Your task to perform on an android device: change timer sound Image 0: 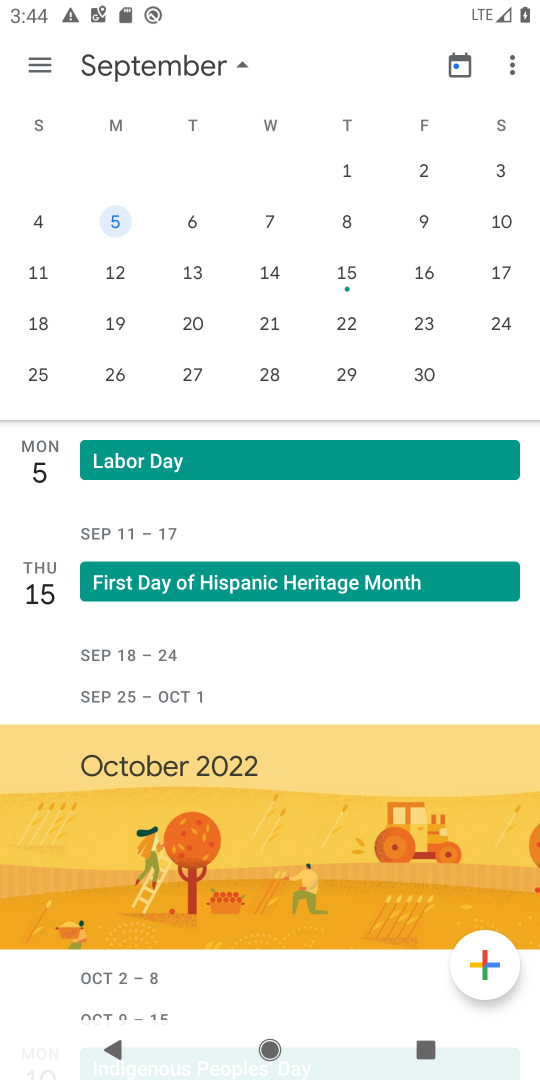
Step 0: press back button
Your task to perform on an android device: change timer sound Image 1: 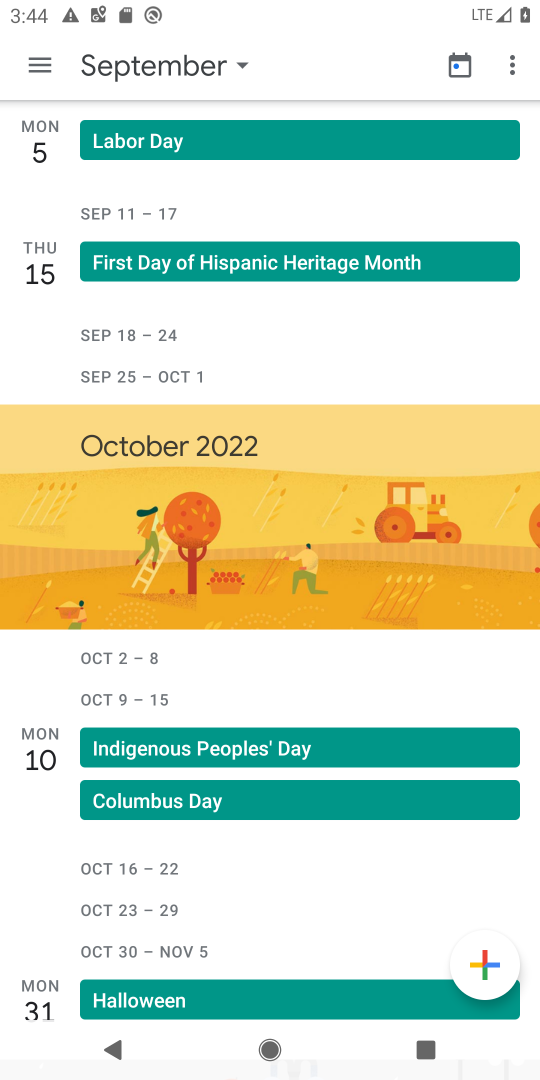
Step 1: press back button
Your task to perform on an android device: change timer sound Image 2: 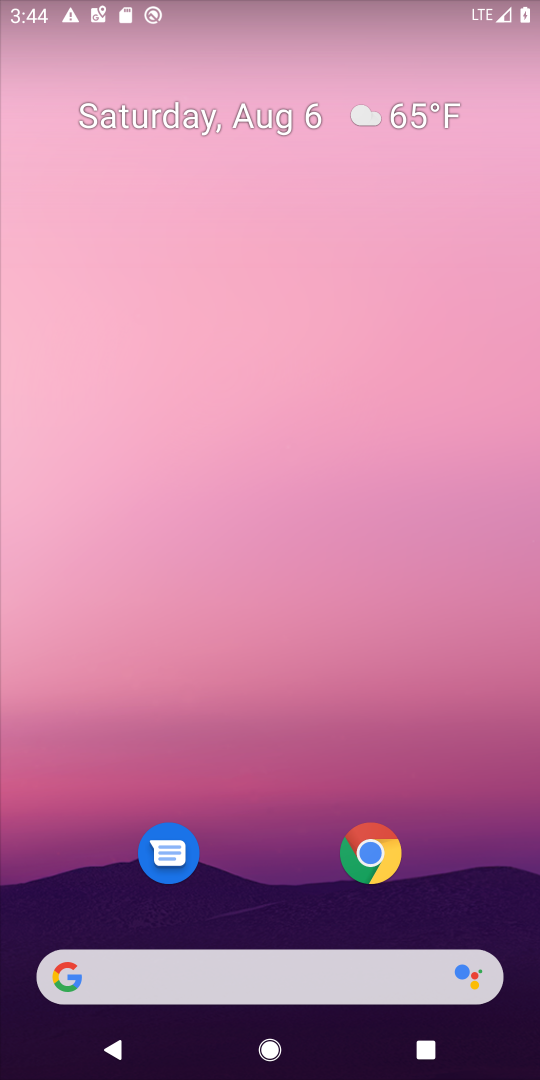
Step 2: drag from (287, 902) to (402, 90)
Your task to perform on an android device: change timer sound Image 3: 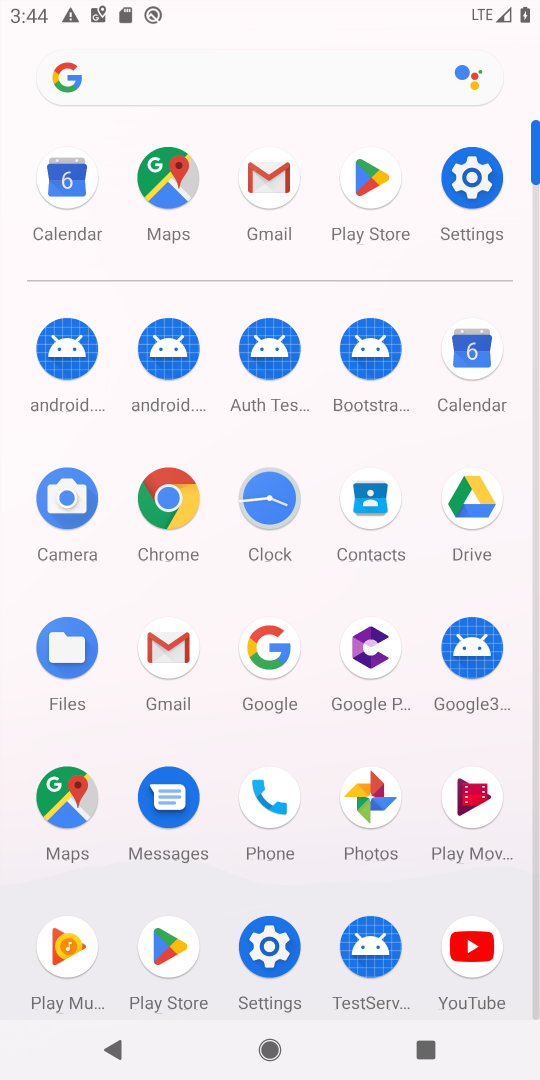
Step 3: click (269, 494)
Your task to perform on an android device: change timer sound Image 4: 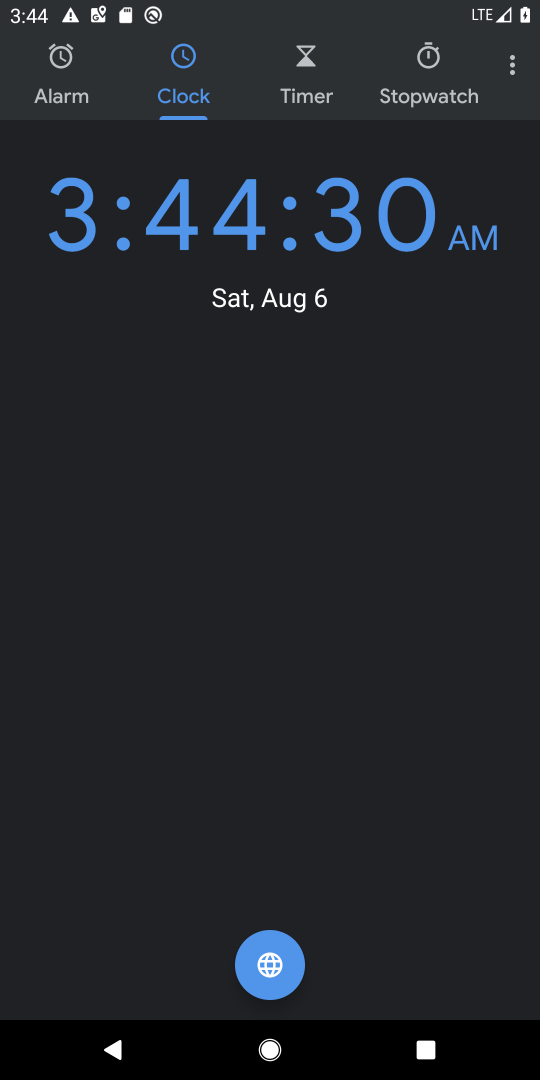
Step 4: click (514, 73)
Your task to perform on an android device: change timer sound Image 5: 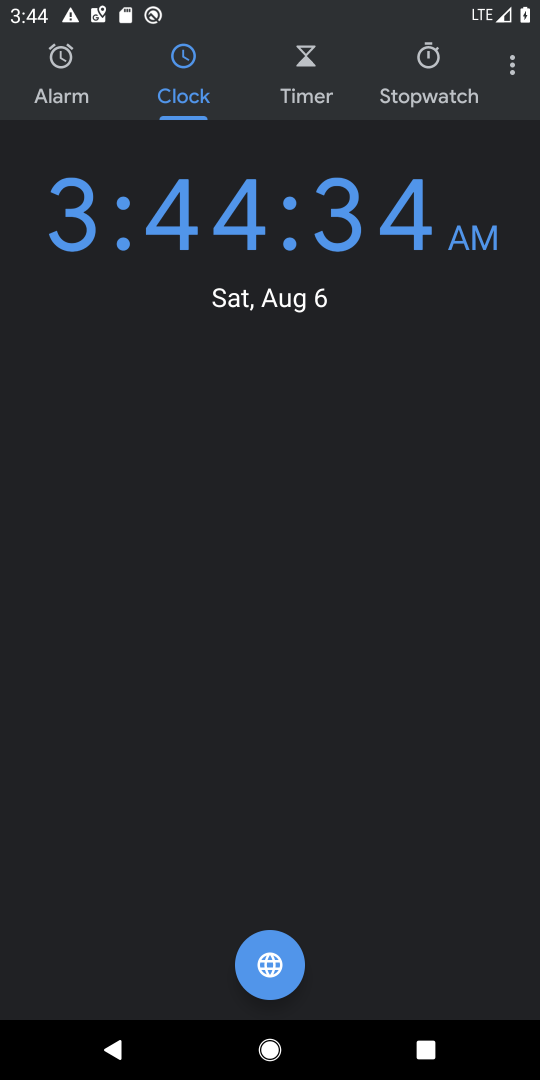
Step 5: click (514, 73)
Your task to perform on an android device: change timer sound Image 6: 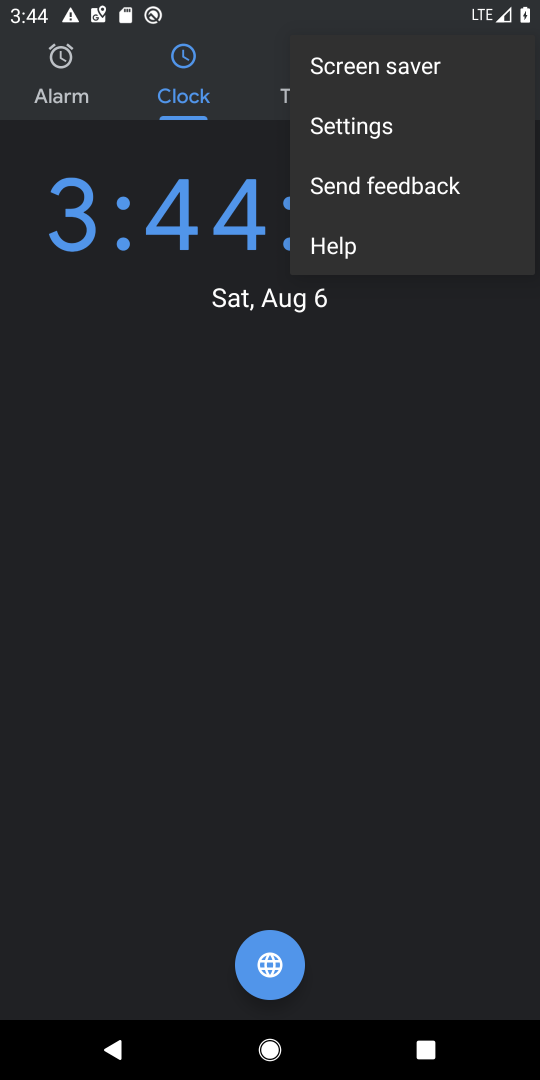
Step 6: click (385, 129)
Your task to perform on an android device: change timer sound Image 7: 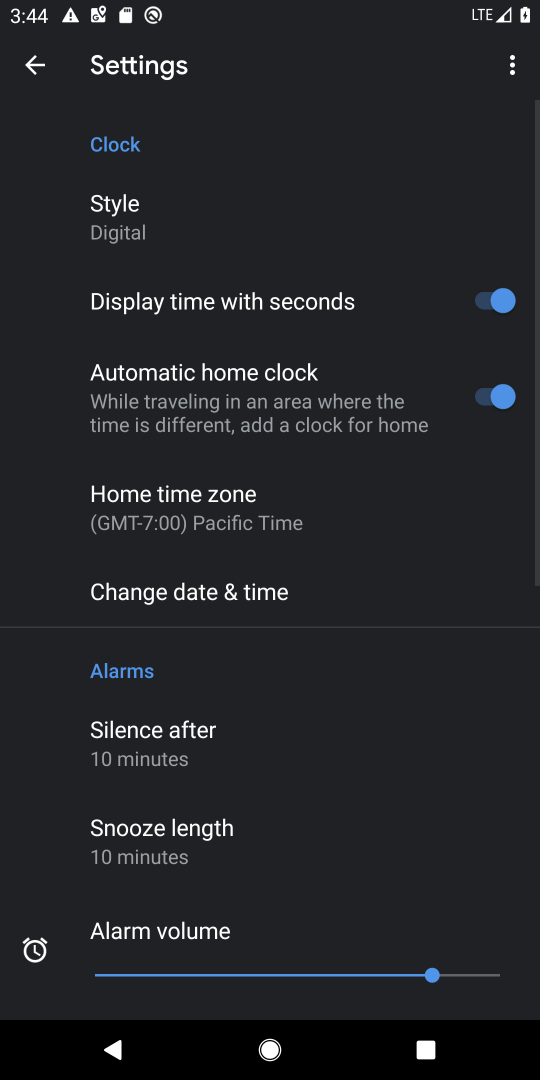
Step 7: drag from (217, 923) to (283, 146)
Your task to perform on an android device: change timer sound Image 8: 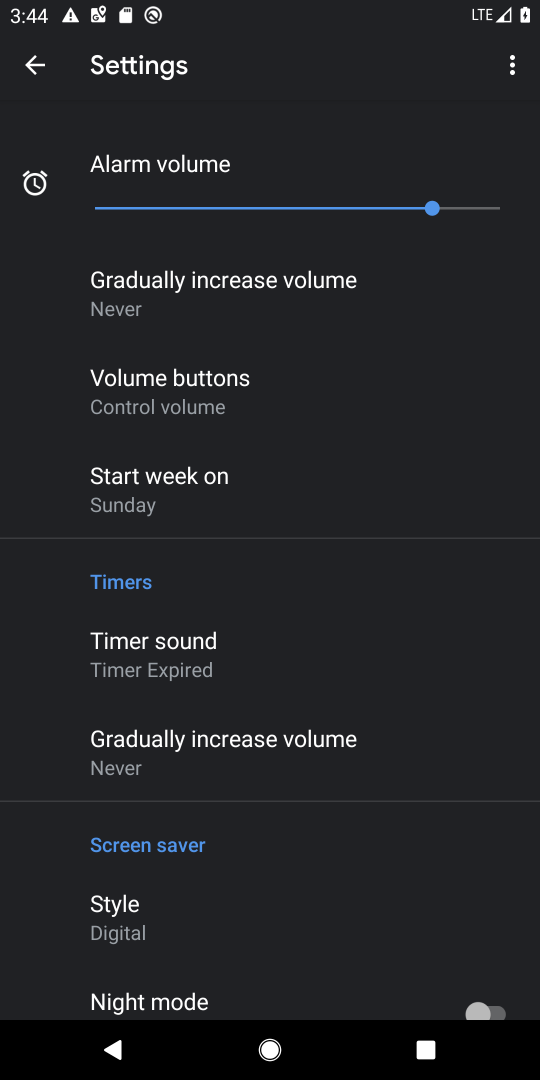
Step 8: click (153, 658)
Your task to perform on an android device: change timer sound Image 9: 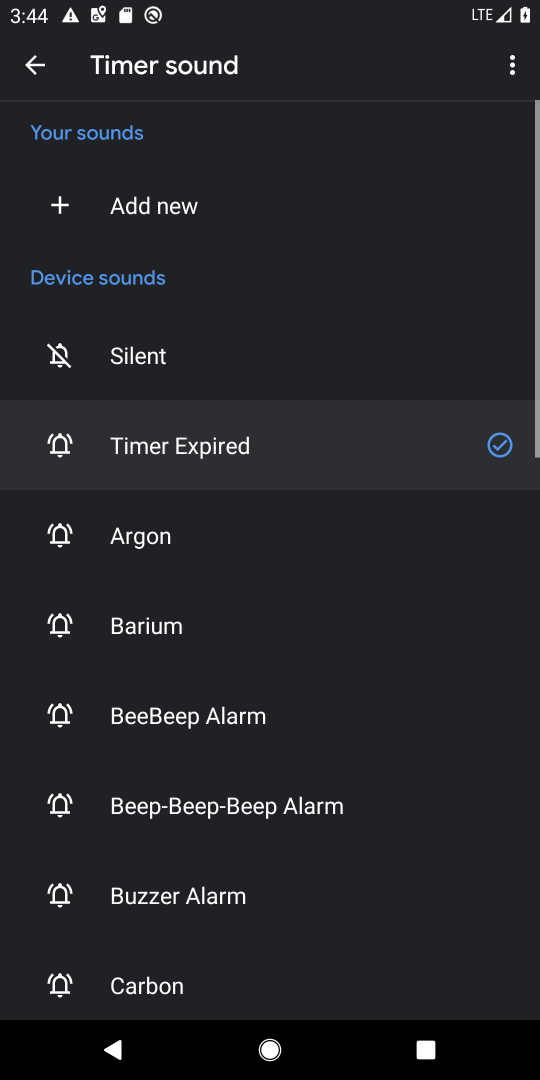
Step 9: click (163, 535)
Your task to perform on an android device: change timer sound Image 10: 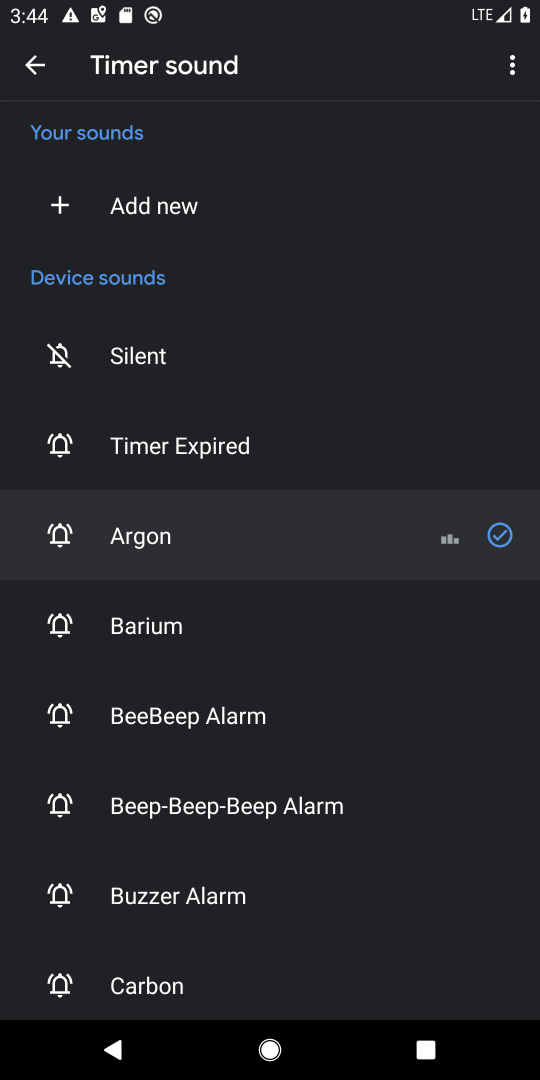
Step 10: task complete